Your task to perform on an android device: Open eBay Image 0: 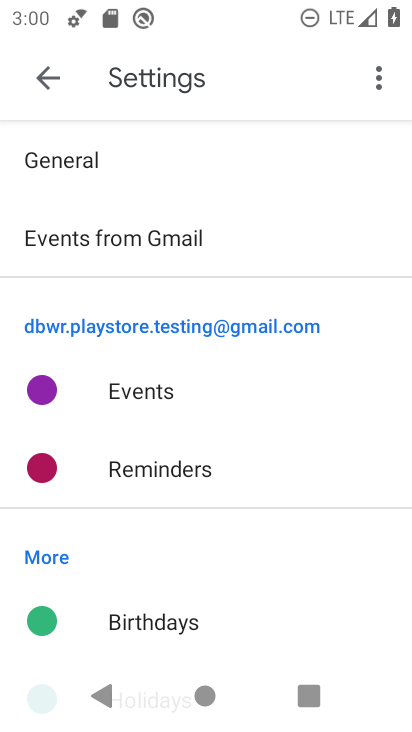
Step 0: press home button
Your task to perform on an android device: Open eBay Image 1: 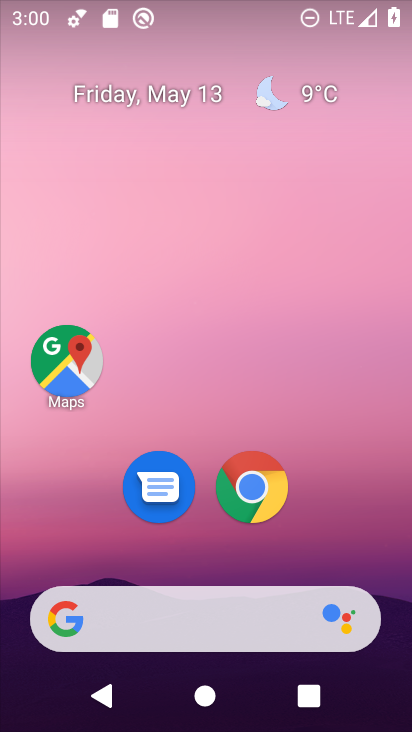
Step 1: click (230, 512)
Your task to perform on an android device: Open eBay Image 2: 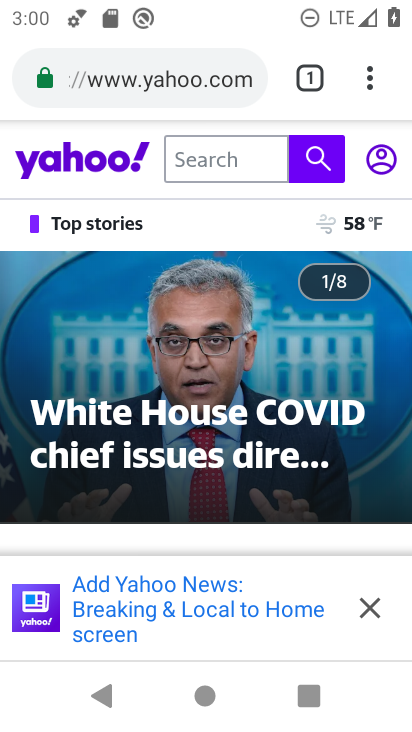
Step 2: click (148, 80)
Your task to perform on an android device: Open eBay Image 3: 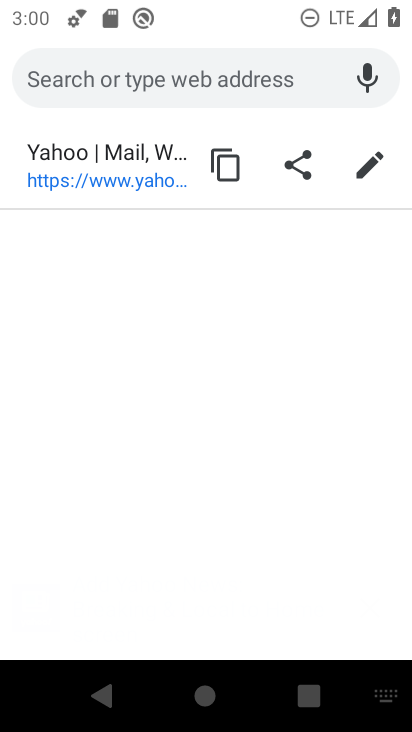
Step 3: type "ebay.com"
Your task to perform on an android device: Open eBay Image 4: 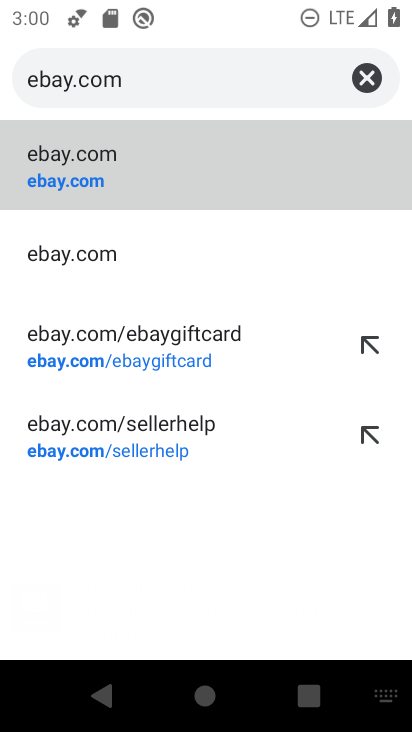
Step 4: click (120, 184)
Your task to perform on an android device: Open eBay Image 5: 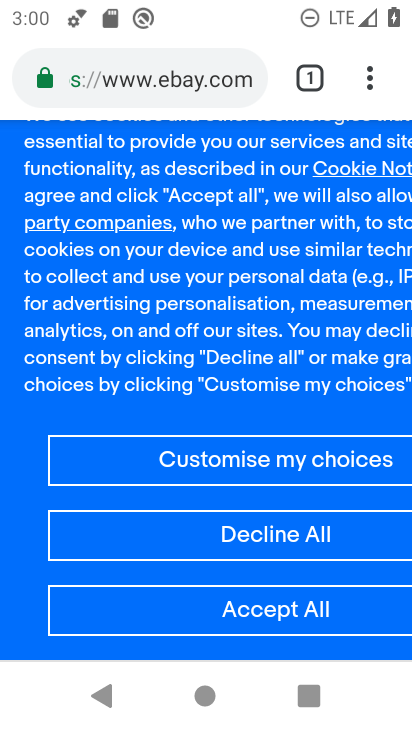
Step 5: task complete